Your task to perform on an android device: Do I have any events today? Image 0: 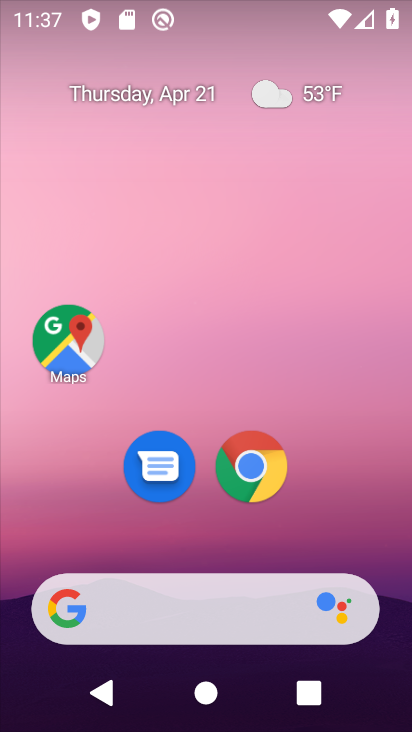
Step 0: drag from (355, 492) to (295, 33)
Your task to perform on an android device: Do I have any events today? Image 1: 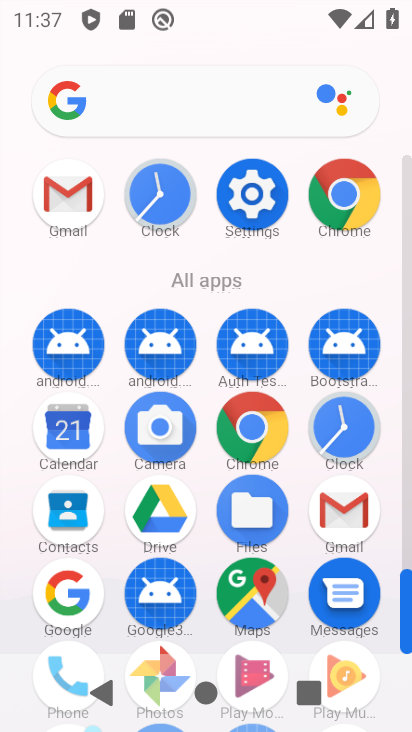
Step 1: drag from (5, 493) to (7, 305)
Your task to perform on an android device: Do I have any events today? Image 2: 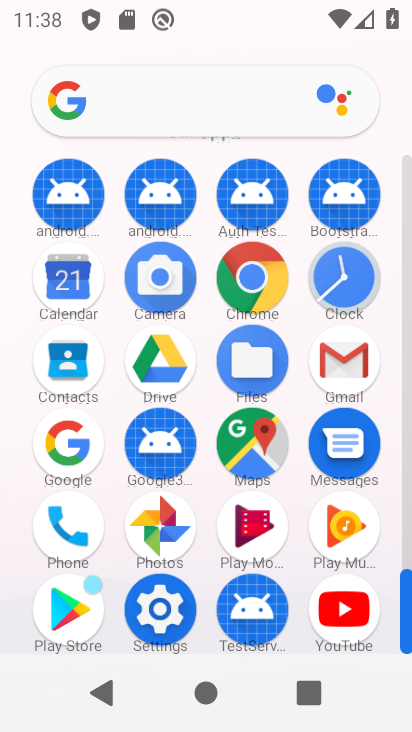
Step 2: drag from (17, 512) to (21, 260)
Your task to perform on an android device: Do I have any events today? Image 3: 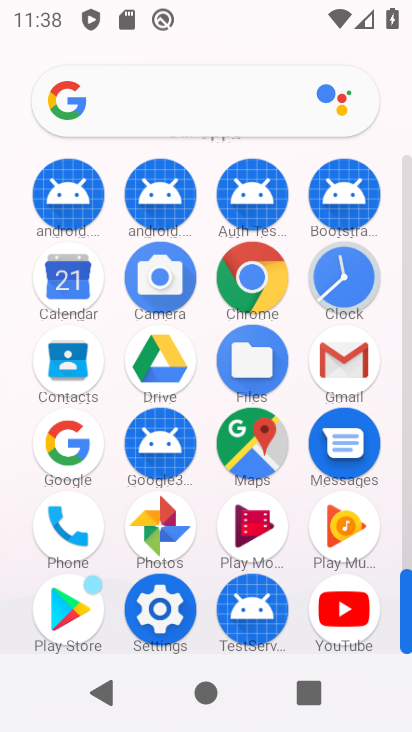
Step 3: click (73, 276)
Your task to perform on an android device: Do I have any events today? Image 4: 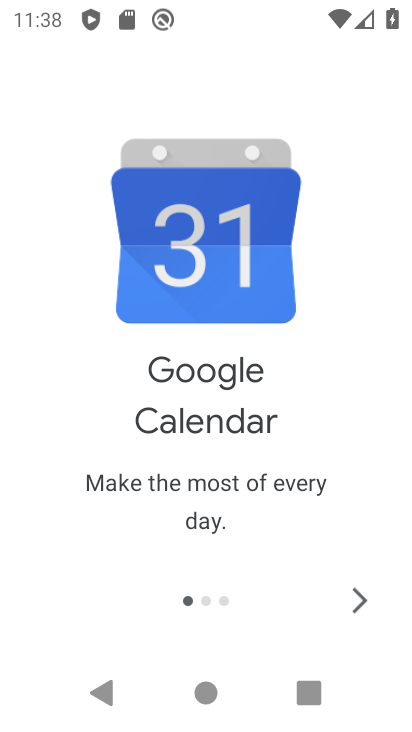
Step 4: click (365, 607)
Your task to perform on an android device: Do I have any events today? Image 5: 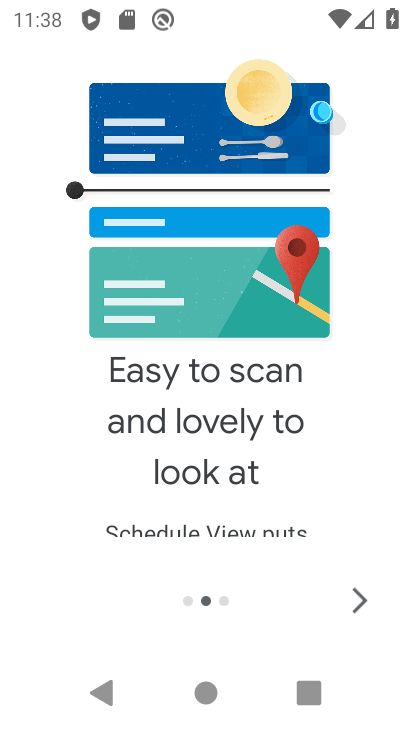
Step 5: click (365, 607)
Your task to perform on an android device: Do I have any events today? Image 6: 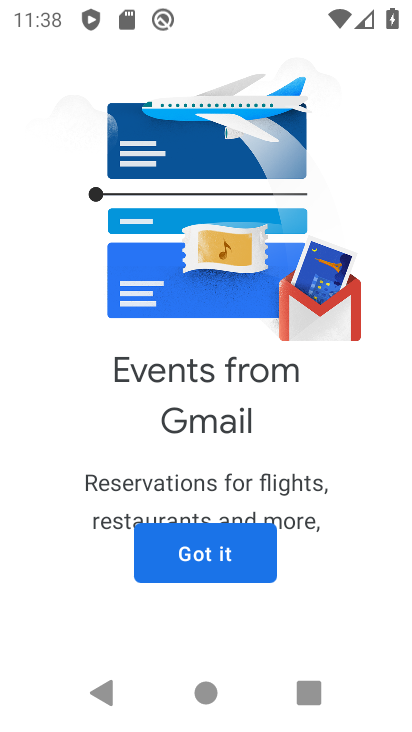
Step 6: click (240, 527)
Your task to perform on an android device: Do I have any events today? Image 7: 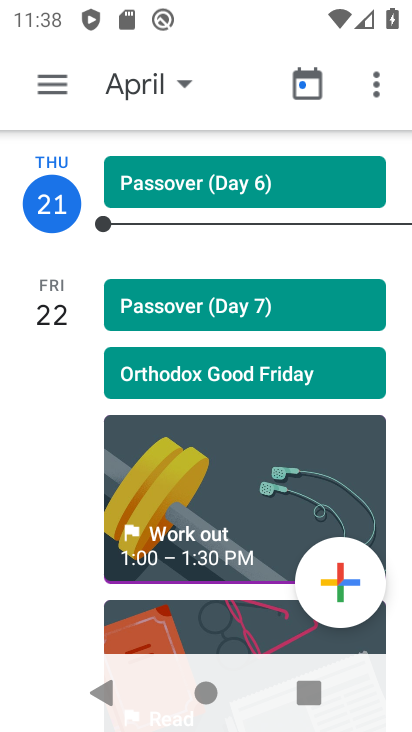
Step 7: task complete